Your task to perform on an android device: Go to ESPN.com Image 0: 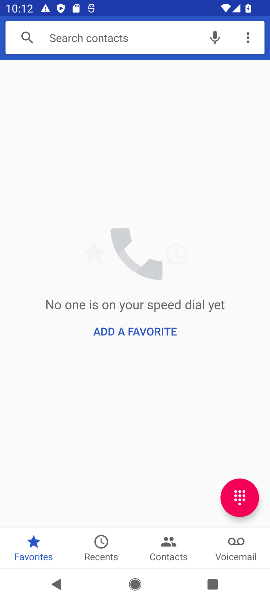
Step 0: press home button
Your task to perform on an android device: Go to ESPN.com Image 1: 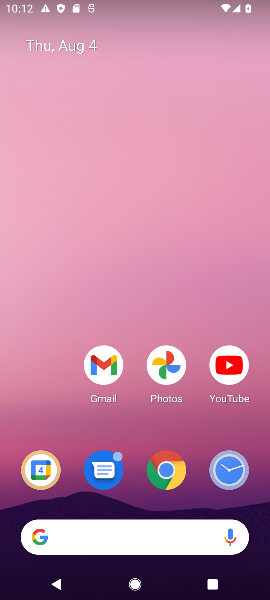
Step 1: click (166, 477)
Your task to perform on an android device: Go to ESPN.com Image 2: 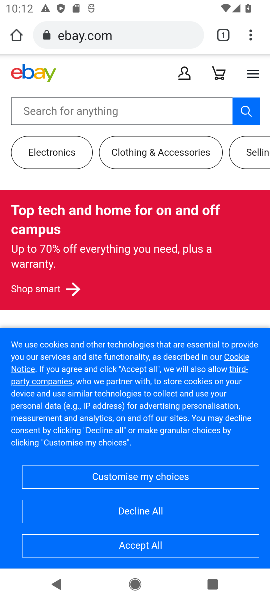
Step 2: click (145, 29)
Your task to perform on an android device: Go to ESPN.com Image 3: 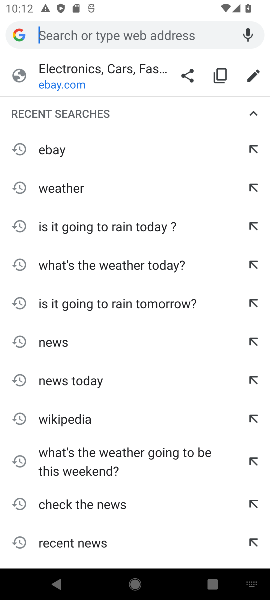
Step 3: type "ESPN.com"
Your task to perform on an android device: Go to ESPN.com Image 4: 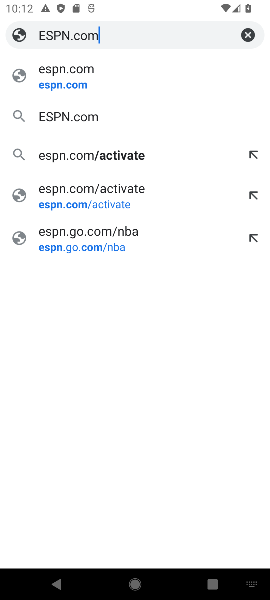
Step 4: click (107, 78)
Your task to perform on an android device: Go to ESPN.com Image 5: 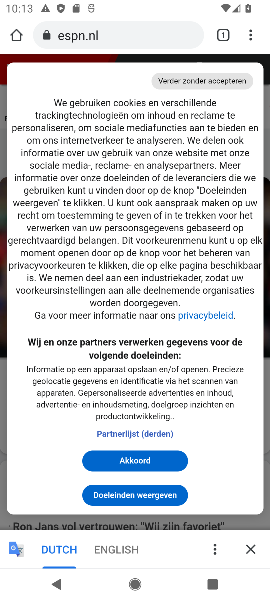
Step 5: task complete